Your task to perform on an android device: check android version Image 0: 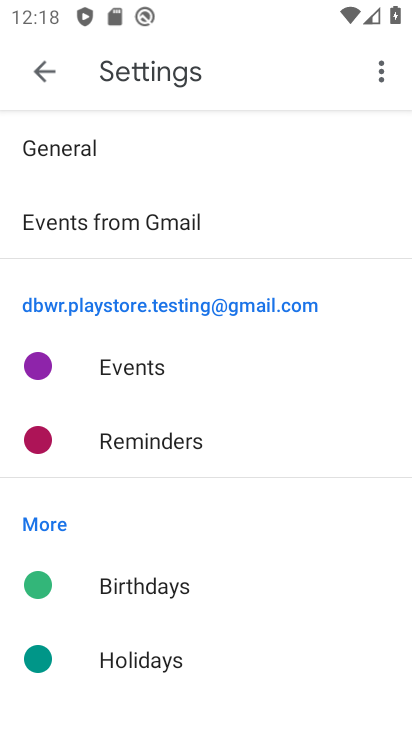
Step 0: press home button
Your task to perform on an android device: check android version Image 1: 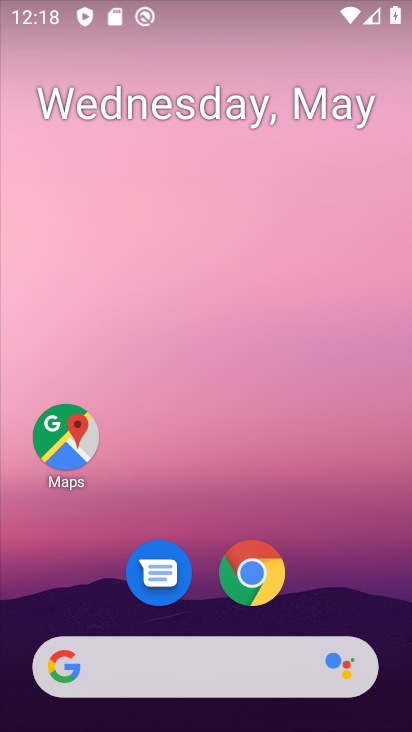
Step 1: drag from (352, 573) to (344, 136)
Your task to perform on an android device: check android version Image 2: 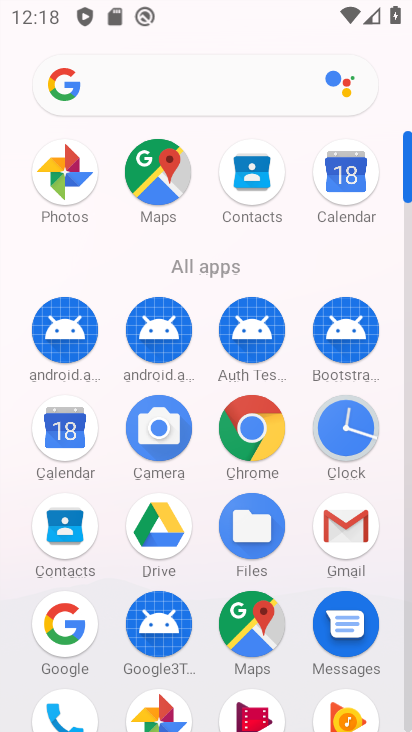
Step 2: drag from (386, 604) to (399, 293)
Your task to perform on an android device: check android version Image 3: 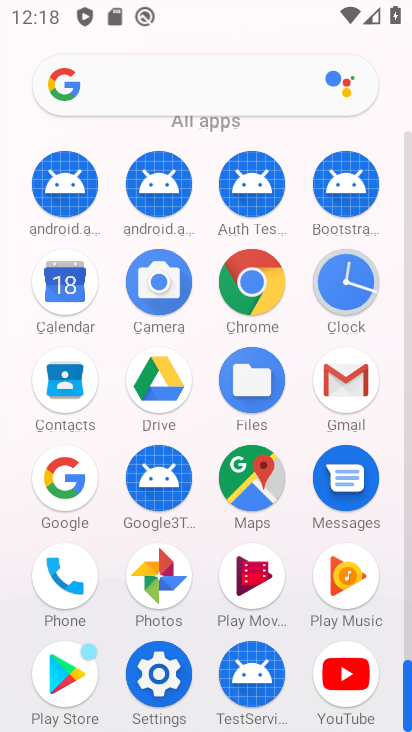
Step 3: click (165, 672)
Your task to perform on an android device: check android version Image 4: 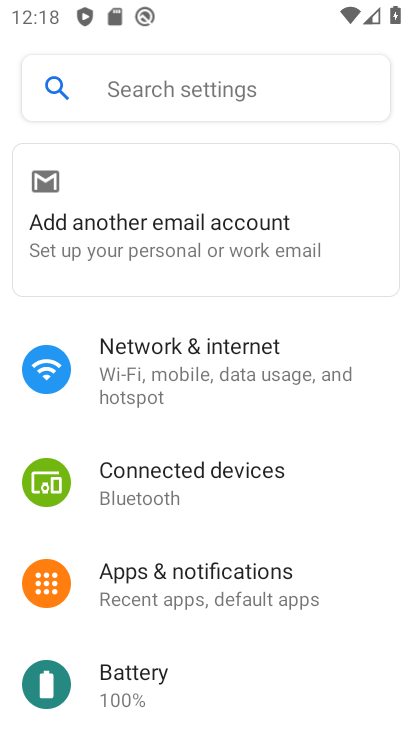
Step 4: drag from (332, 586) to (350, 345)
Your task to perform on an android device: check android version Image 5: 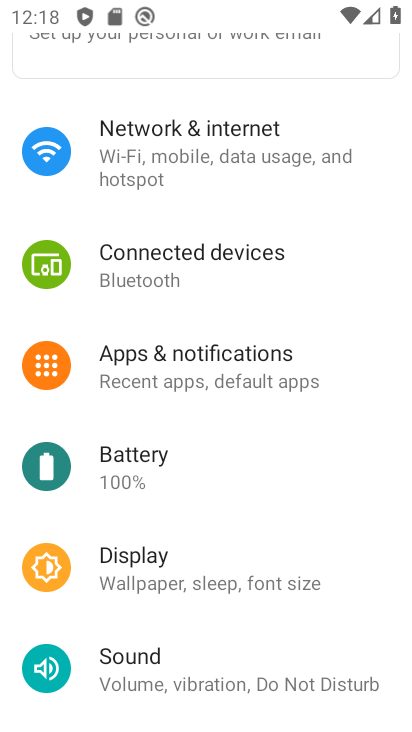
Step 5: drag from (338, 629) to (363, 384)
Your task to perform on an android device: check android version Image 6: 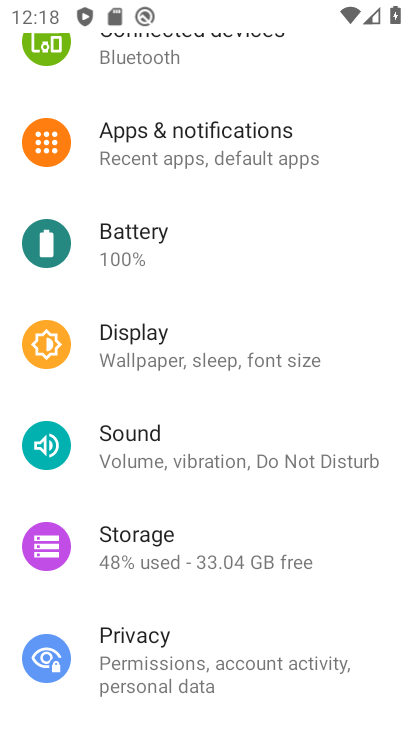
Step 6: drag from (354, 656) to (342, 443)
Your task to perform on an android device: check android version Image 7: 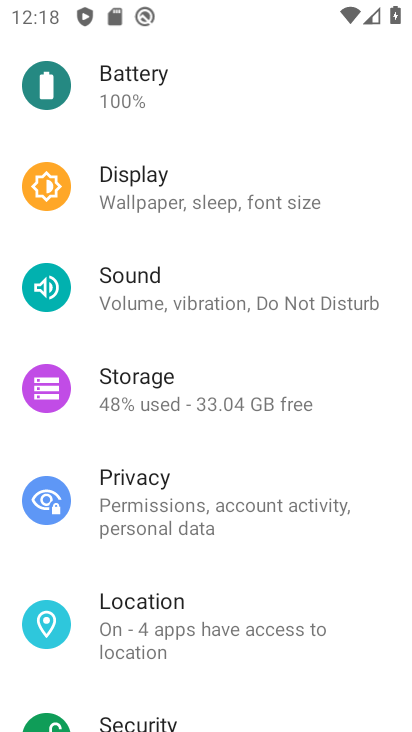
Step 7: drag from (337, 671) to (348, 451)
Your task to perform on an android device: check android version Image 8: 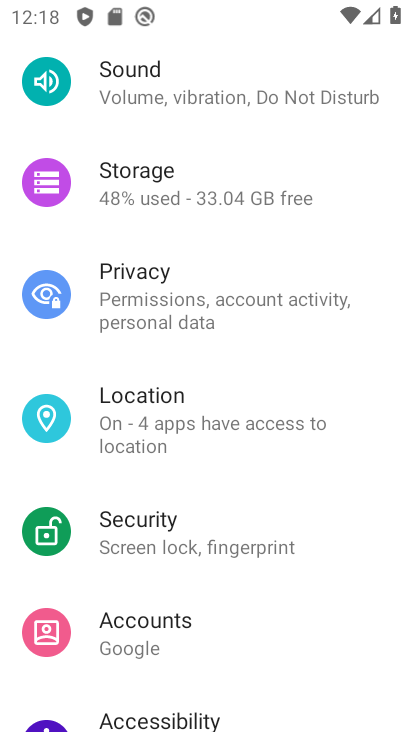
Step 8: drag from (345, 635) to (338, 537)
Your task to perform on an android device: check android version Image 9: 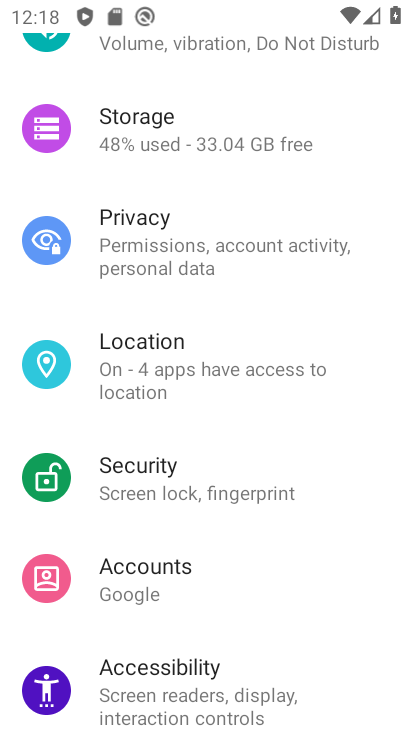
Step 9: drag from (339, 619) to (347, 430)
Your task to perform on an android device: check android version Image 10: 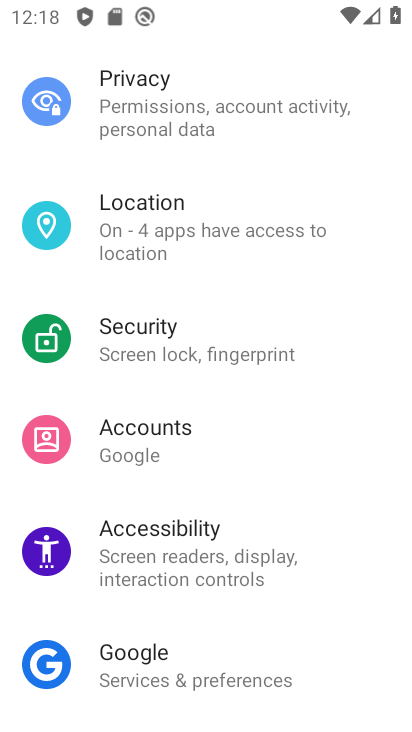
Step 10: drag from (329, 639) to (340, 431)
Your task to perform on an android device: check android version Image 11: 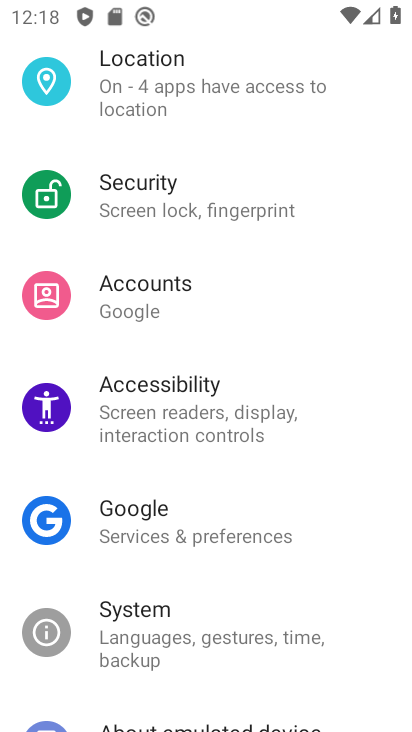
Step 11: drag from (335, 679) to (334, 508)
Your task to perform on an android device: check android version Image 12: 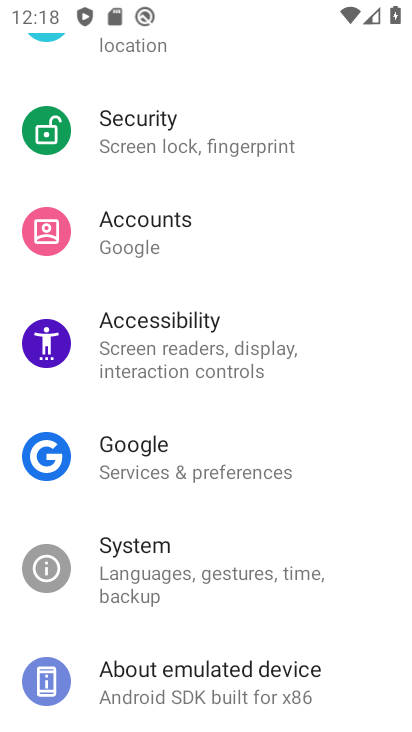
Step 12: click (284, 577)
Your task to perform on an android device: check android version Image 13: 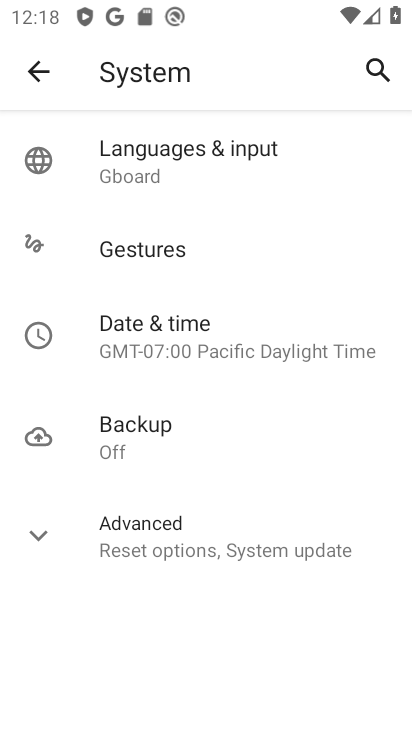
Step 13: click (268, 548)
Your task to perform on an android device: check android version Image 14: 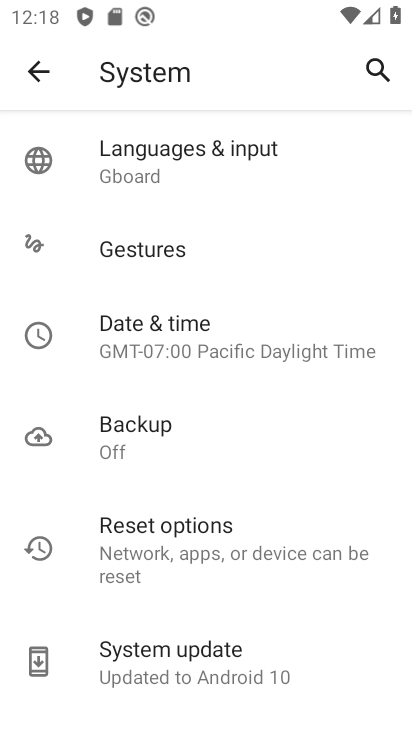
Step 14: drag from (283, 621) to (289, 432)
Your task to perform on an android device: check android version Image 15: 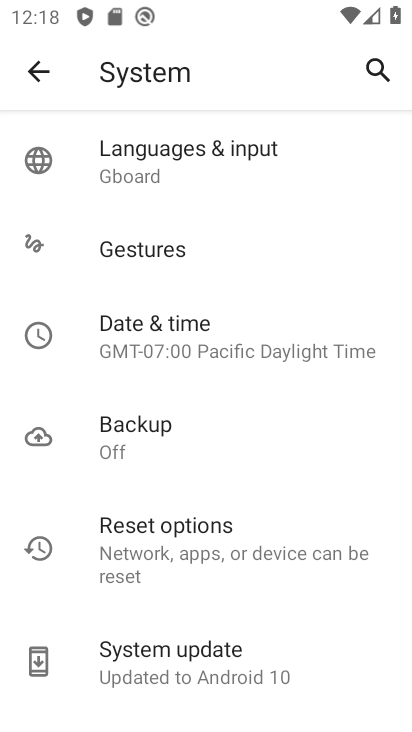
Step 15: click (249, 671)
Your task to perform on an android device: check android version Image 16: 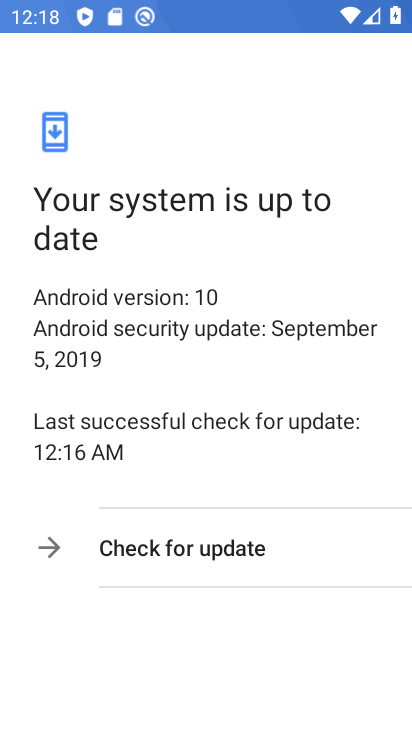
Step 16: task complete